Your task to perform on an android device: Go to eBay Image 0: 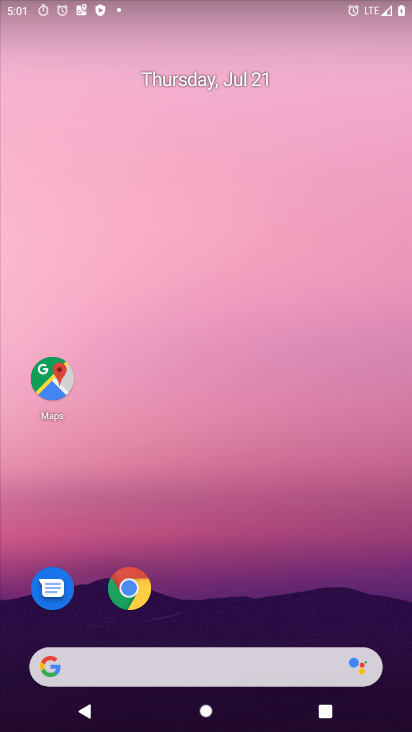
Step 0: click (123, 585)
Your task to perform on an android device: Go to eBay Image 1: 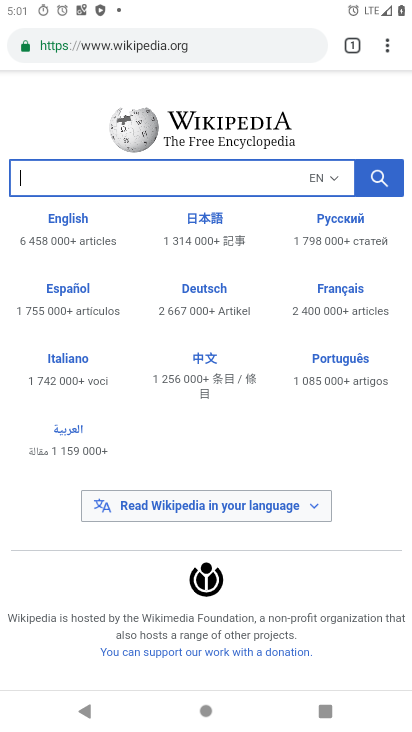
Step 1: click (155, 47)
Your task to perform on an android device: Go to eBay Image 2: 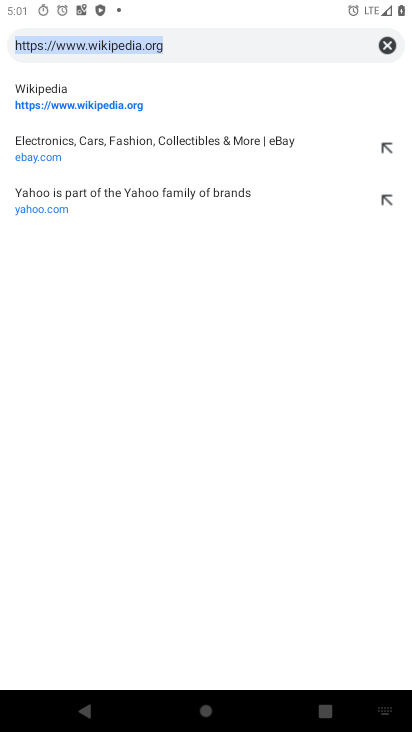
Step 2: click (382, 43)
Your task to perform on an android device: Go to eBay Image 3: 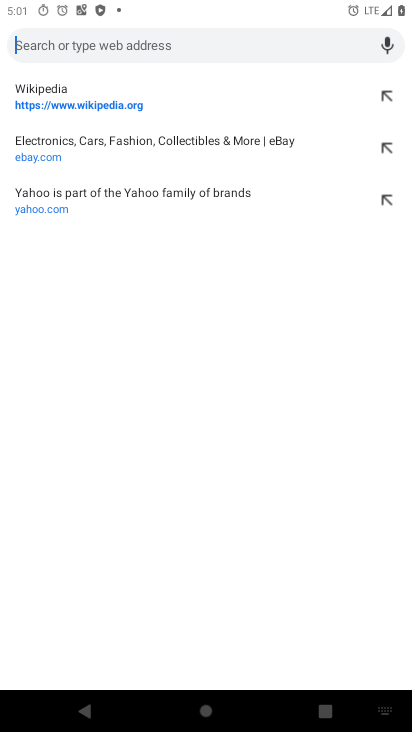
Step 3: type "eBay"
Your task to perform on an android device: Go to eBay Image 4: 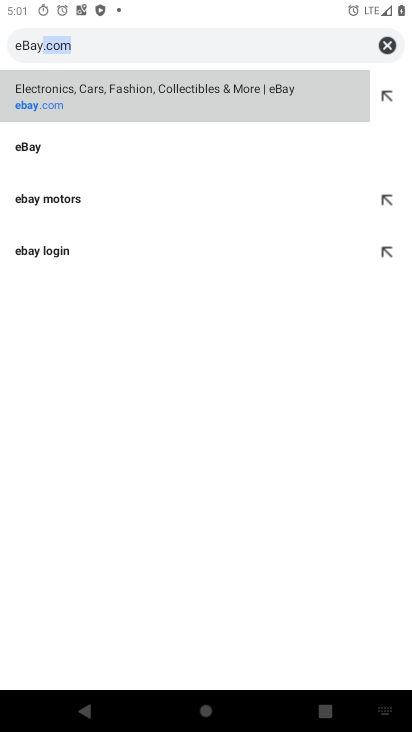
Step 4: click (42, 102)
Your task to perform on an android device: Go to eBay Image 5: 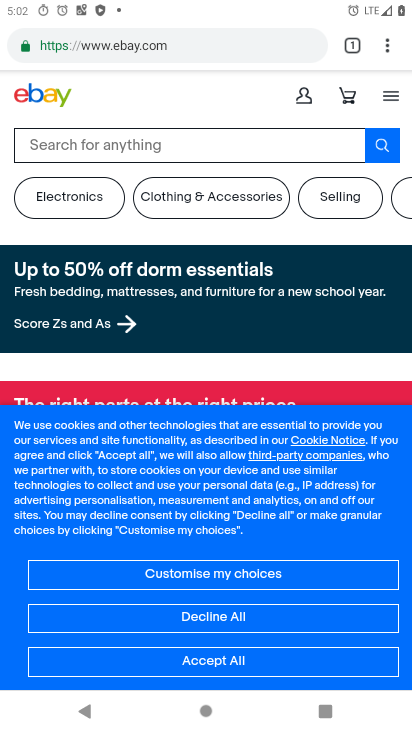
Step 5: task complete